Your task to perform on an android device: open sync settings in chrome Image 0: 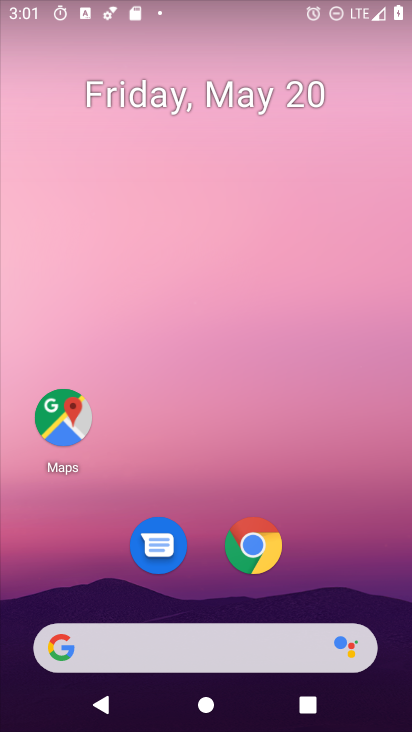
Step 0: drag from (285, 590) to (234, 7)
Your task to perform on an android device: open sync settings in chrome Image 1: 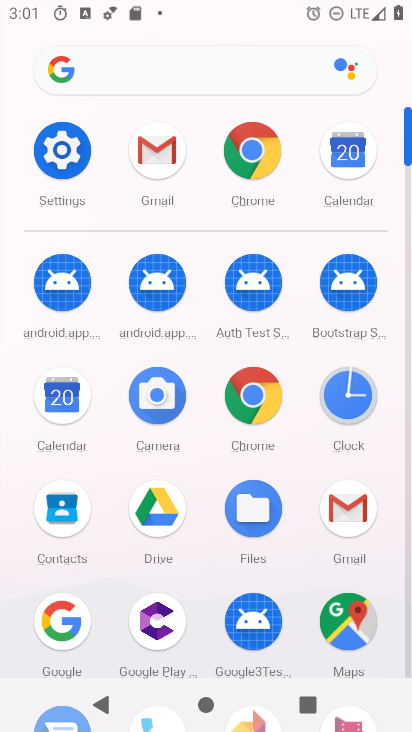
Step 1: click (269, 397)
Your task to perform on an android device: open sync settings in chrome Image 2: 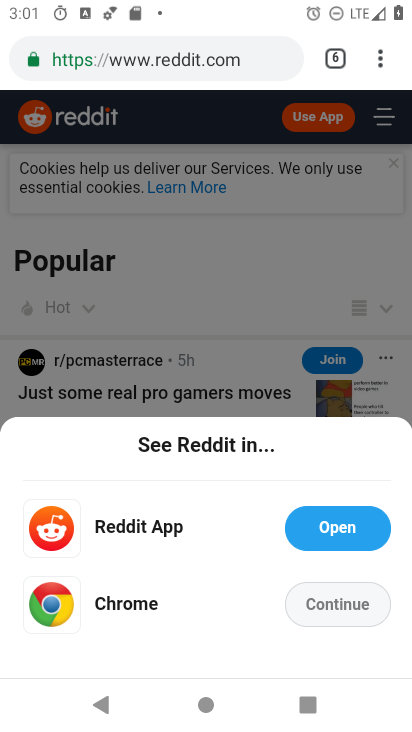
Step 2: click (382, 55)
Your task to perform on an android device: open sync settings in chrome Image 3: 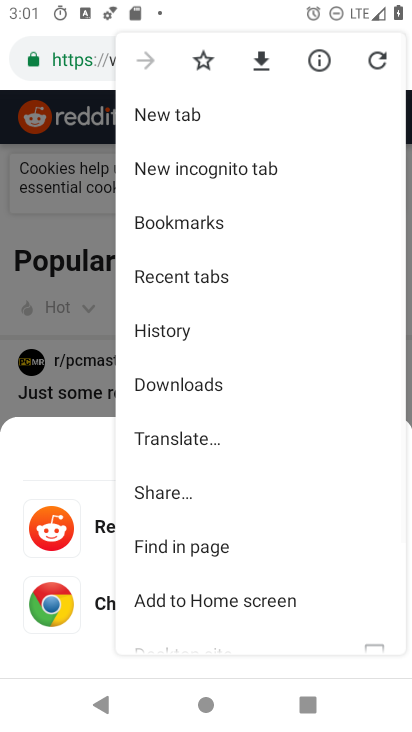
Step 3: drag from (205, 555) to (214, 161)
Your task to perform on an android device: open sync settings in chrome Image 4: 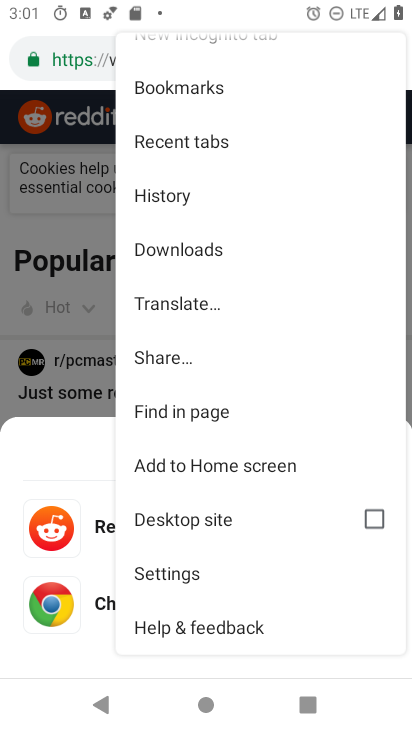
Step 4: click (214, 572)
Your task to perform on an android device: open sync settings in chrome Image 5: 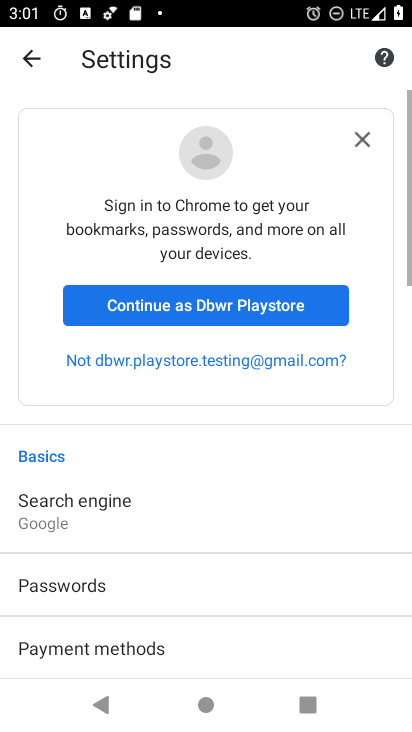
Step 5: drag from (191, 628) to (209, 101)
Your task to perform on an android device: open sync settings in chrome Image 6: 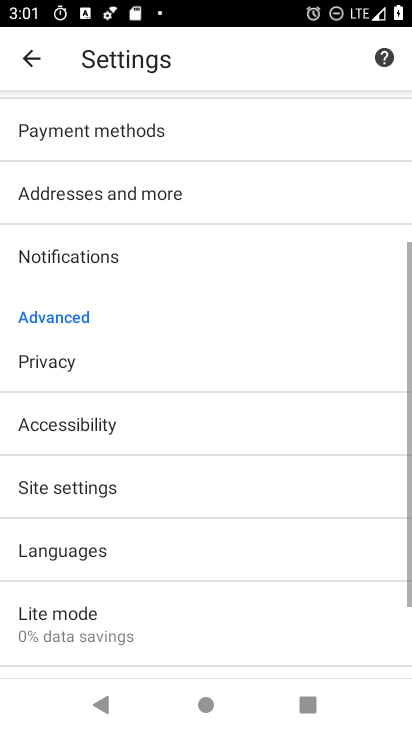
Step 6: drag from (250, 603) to (223, 339)
Your task to perform on an android device: open sync settings in chrome Image 7: 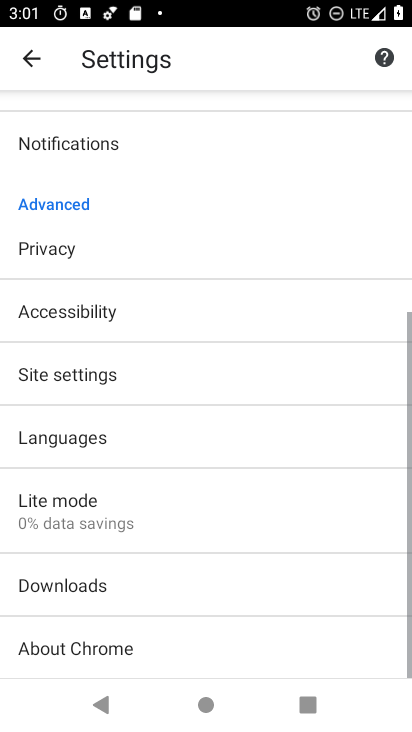
Step 7: drag from (206, 634) to (217, 195)
Your task to perform on an android device: open sync settings in chrome Image 8: 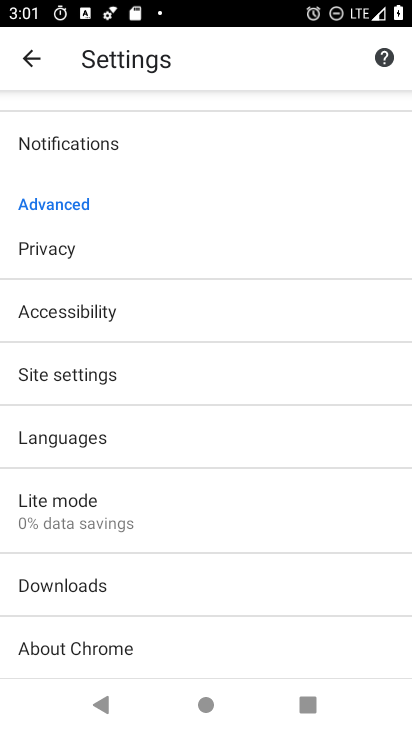
Step 8: click (140, 390)
Your task to perform on an android device: open sync settings in chrome Image 9: 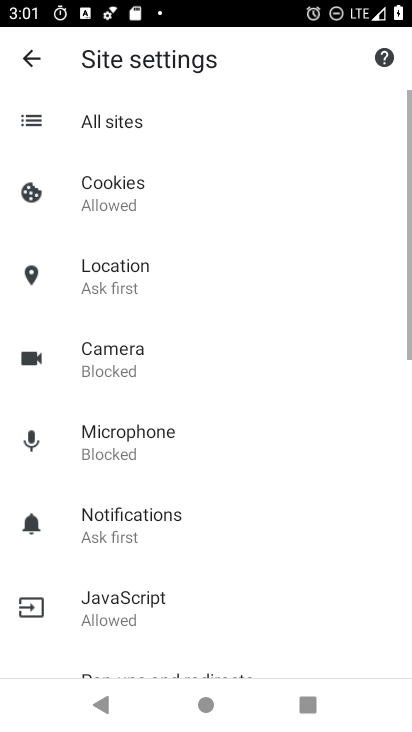
Step 9: drag from (282, 636) to (272, 154)
Your task to perform on an android device: open sync settings in chrome Image 10: 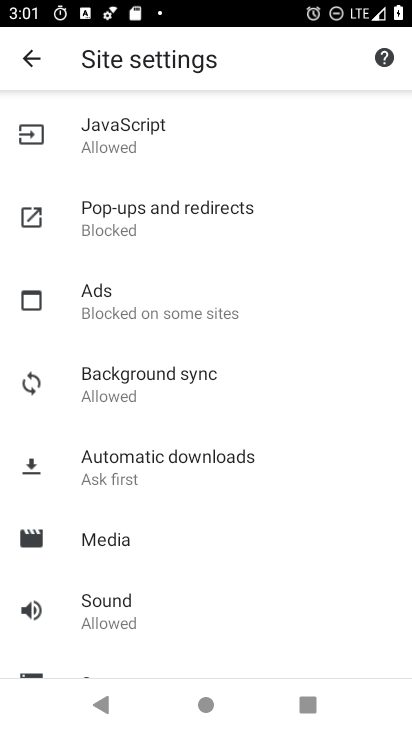
Step 10: click (180, 382)
Your task to perform on an android device: open sync settings in chrome Image 11: 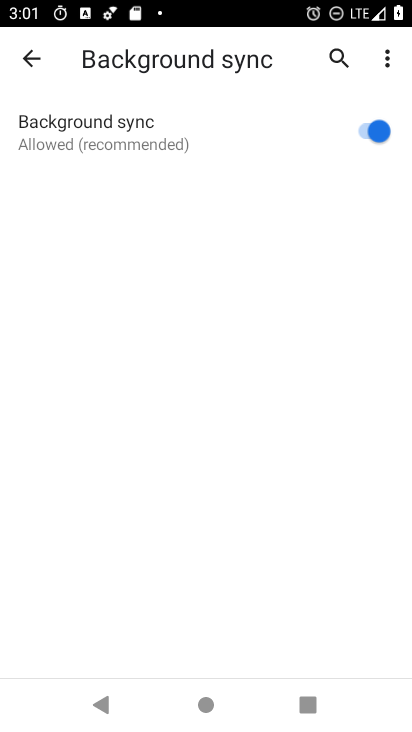
Step 11: task complete